Your task to perform on an android device: Open calendar and show me the fourth week of next month Image 0: 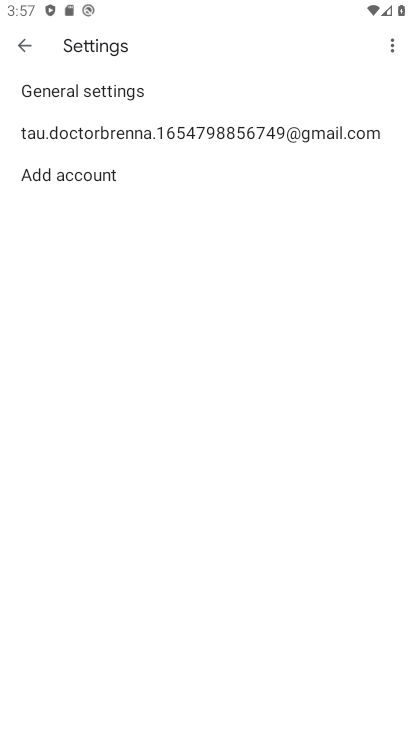
Step 0: press home button
Your task to perform on an android device: Open calendar and show me the fourth week of next month Image 1: 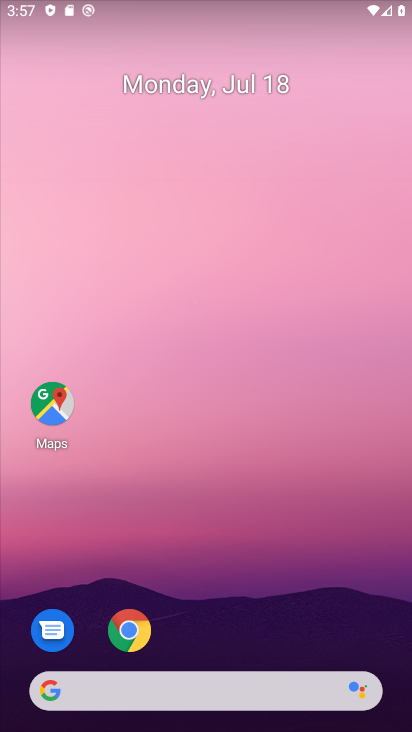
Step 1: drag from (286, 656) to (309, 106)
Your task to perform on an android device: Open calendar and show me the fourth week of next month Image 2: 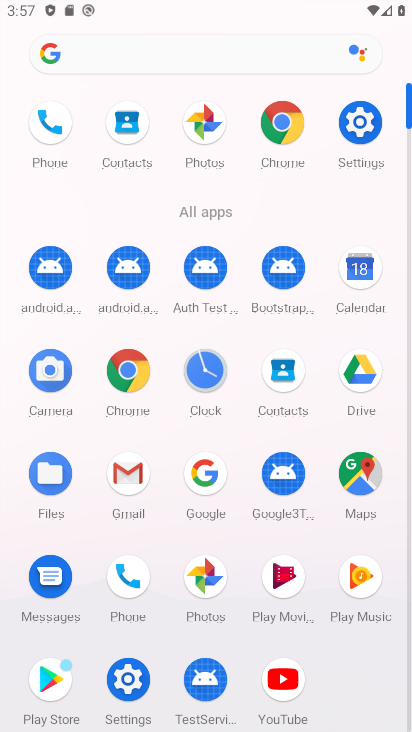
Step 2: click (358, 256)
Your task to perform on an android device: Open calendar and show me the fourth week of next month Image 3: 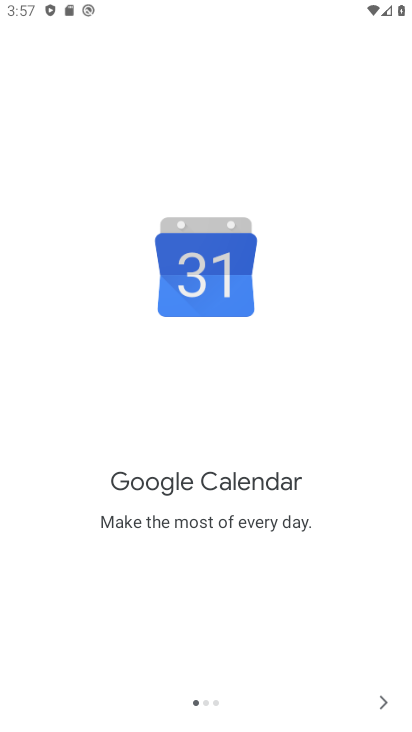
Step 3: click (390, 700)
Your task to perform on an android device: Open calendar and show me the fourth week of next month Image 4: 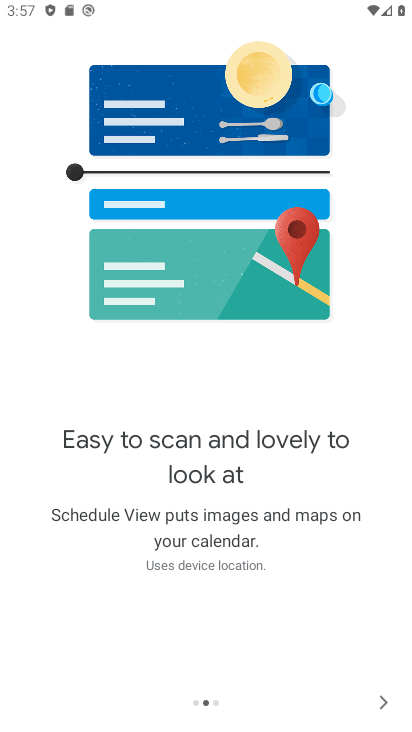
Step 4: click (390, 700)
Your task to perform on an android device: Open calendar and show me the fourth week of next month Image 5: 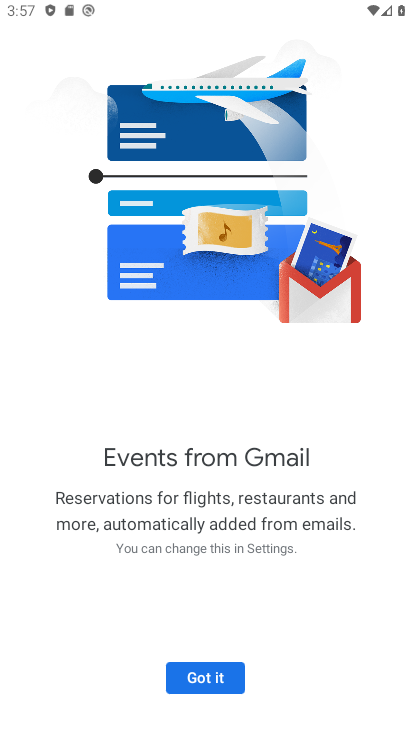
Step 5: click (199, 687)
Your task to perform on an android device: Open calendar and show me the fourth week of next month Image 6: 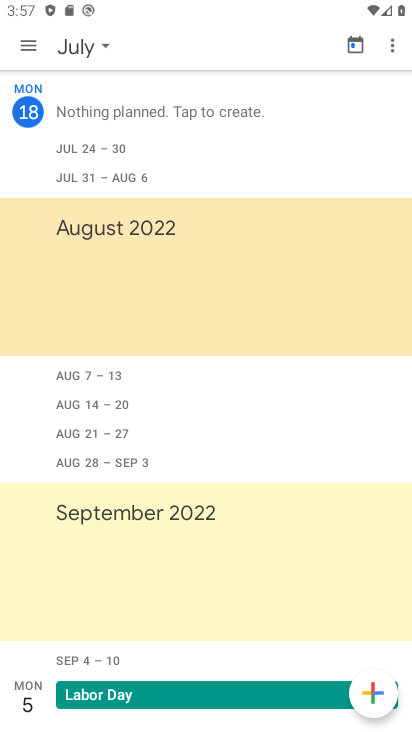
Step 6: click (94, 54)
Your task to perform on an android device: Open calendar and show me the fourth week of next month Image 7: 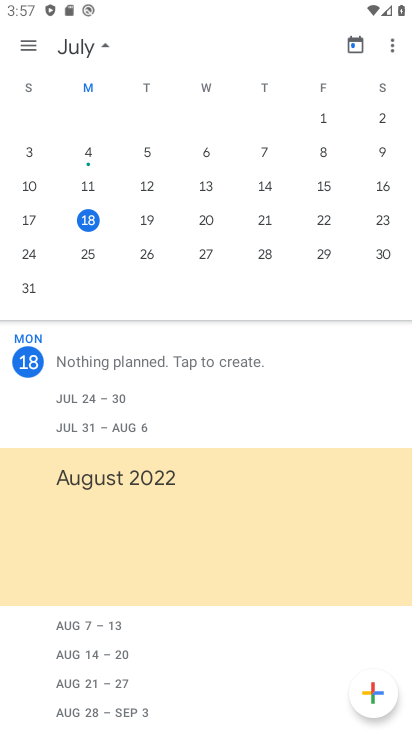
Step 7: drag from (383, 256) to (65, 214)
Your task to perform on an android device: Open calendar and show me the fourth week of next month Image 8: 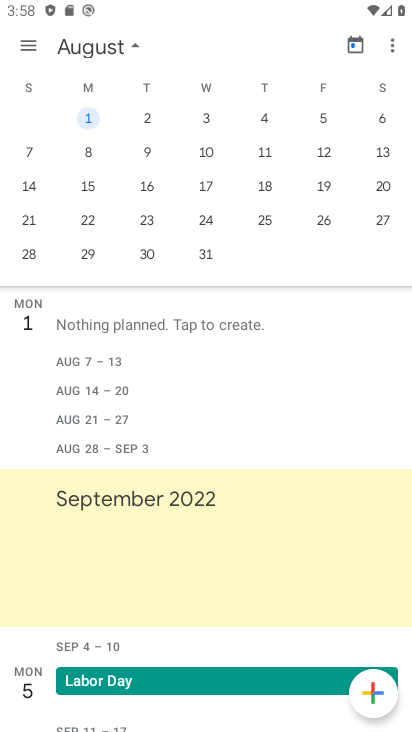
Step 8: click (260, 226)
Your task to perform on an android device: Open calendar and show me the fourth week of next month Image 9: 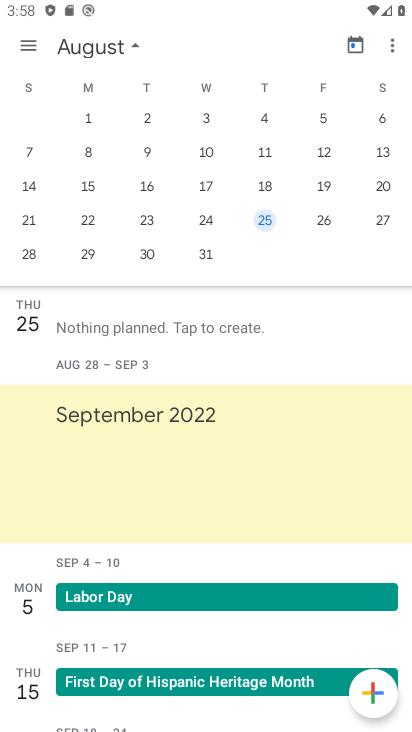
Step 9: click (33, 43)
Your task to perform on an android device: Open calendar and show me the fourth week of next month Image 10: 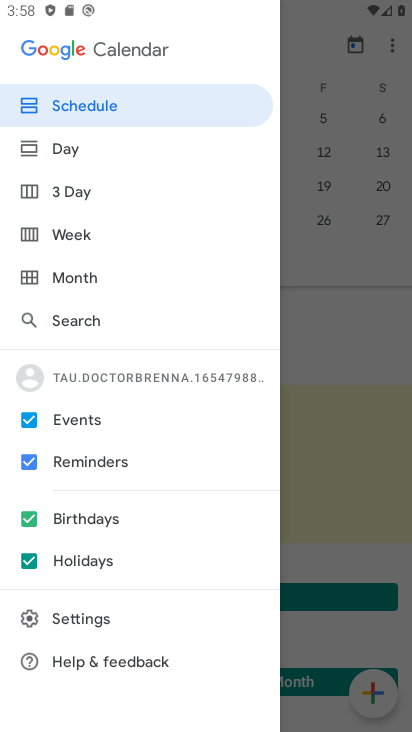
Step 10: click (82, 238)
Your task to perform on an android device: Open calendar and show me the fourth week of next month Image 11: 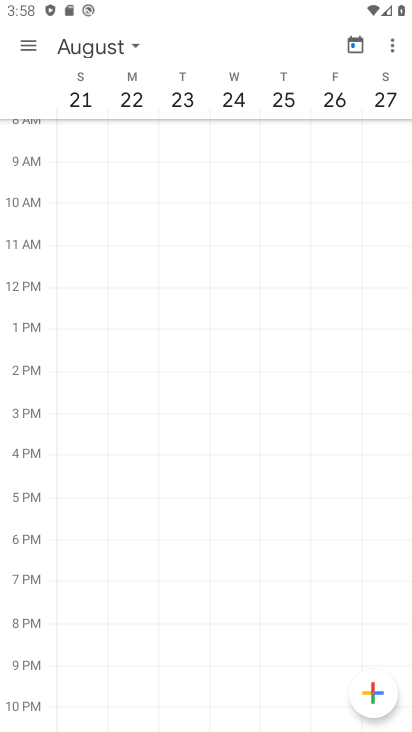
Step 11: task complete